Your task to perform on an android device: Go to Google maps Image 0: 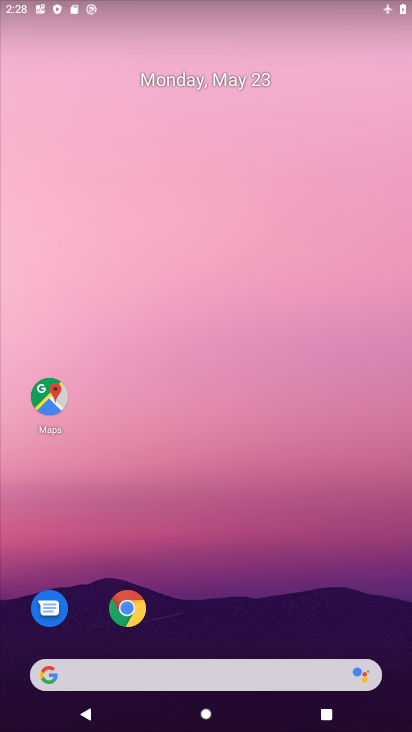
Step 0: drag from (219, 677) to (240, 46)
Your task to perform on an android device: Go to Google maps Image 1: 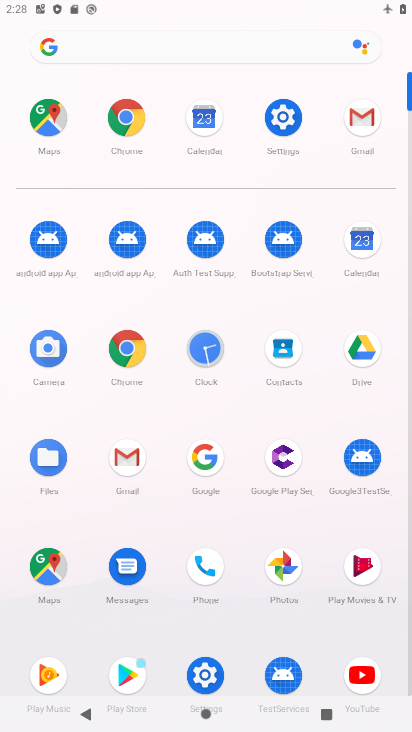
Step 1: click (48, 558)
Your task to perform on an android device: Go to Google maps Image 2: 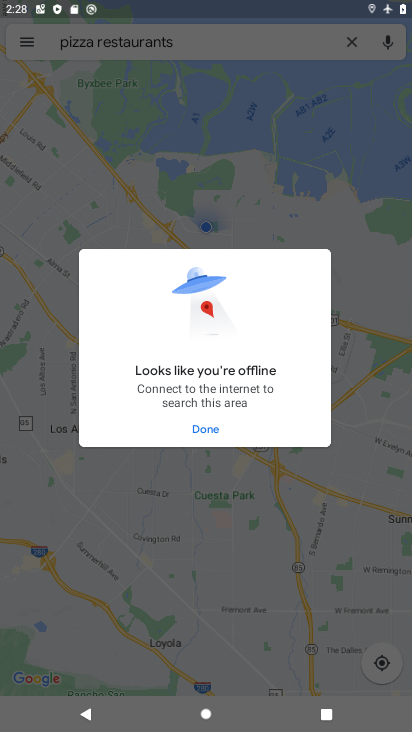
Step 2: click (225, 418)
Your task to perform on an android device: Go to Google maps Image 3: 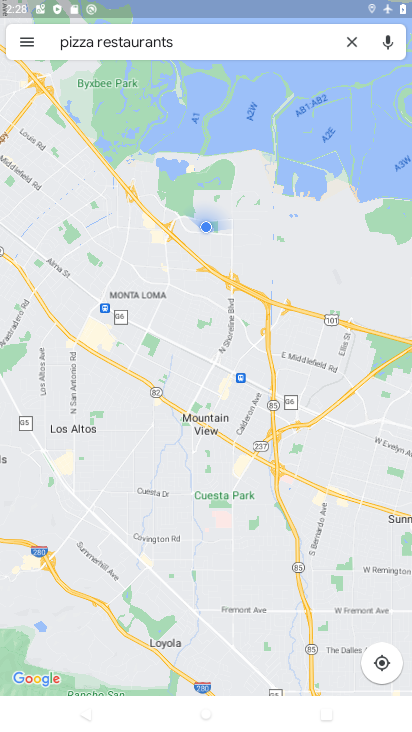
Step 3: press home button
Your task to perform on an android device: Go to Google maps Image 4: 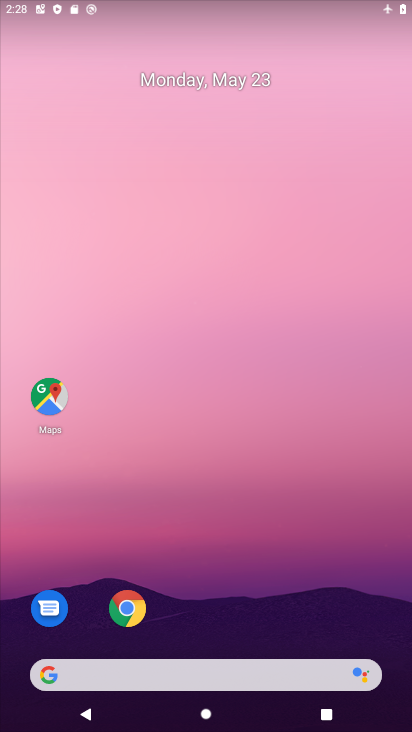
Step 4: drag from (208, 647) to (37, 730)
Your task to perform on an android device: Go to Google maps Image 5: 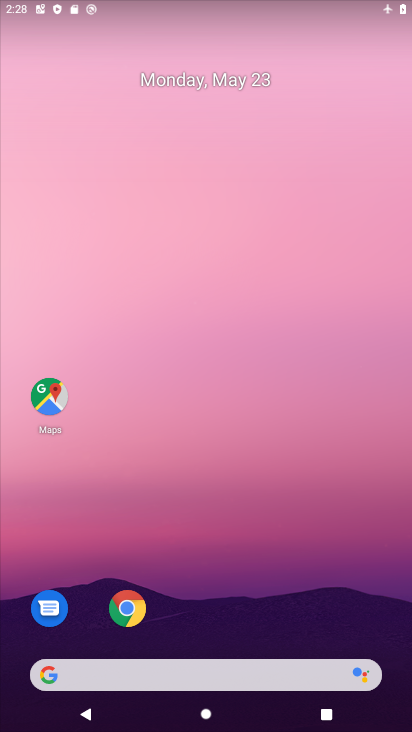
Step 5: drag from (206, 645) to (149, 110)
Your task to perform on an android device: Go to Google maps Image 6: 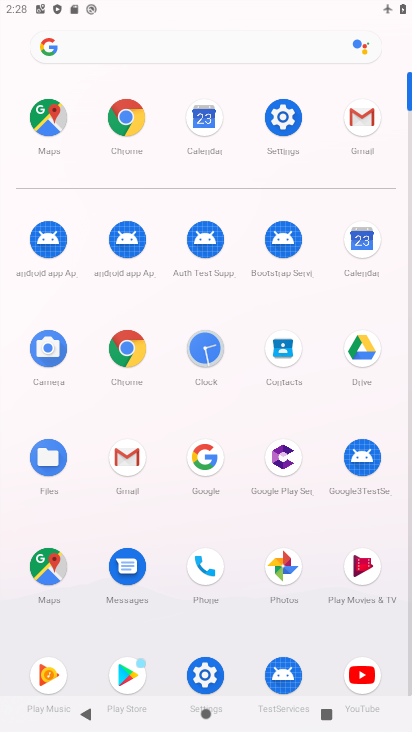
Step 6: click (54, 579)
Your task to perform on an android device: Go to Google maps Image 7: 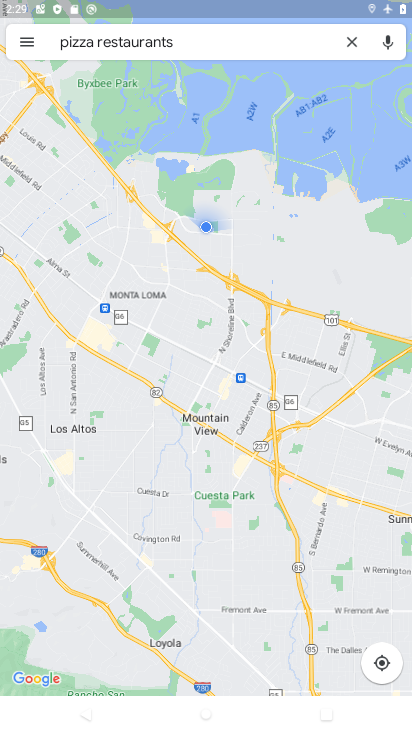
Step 7: task complete